Your task to perform on an android device: change alarm snooze length Image 0: 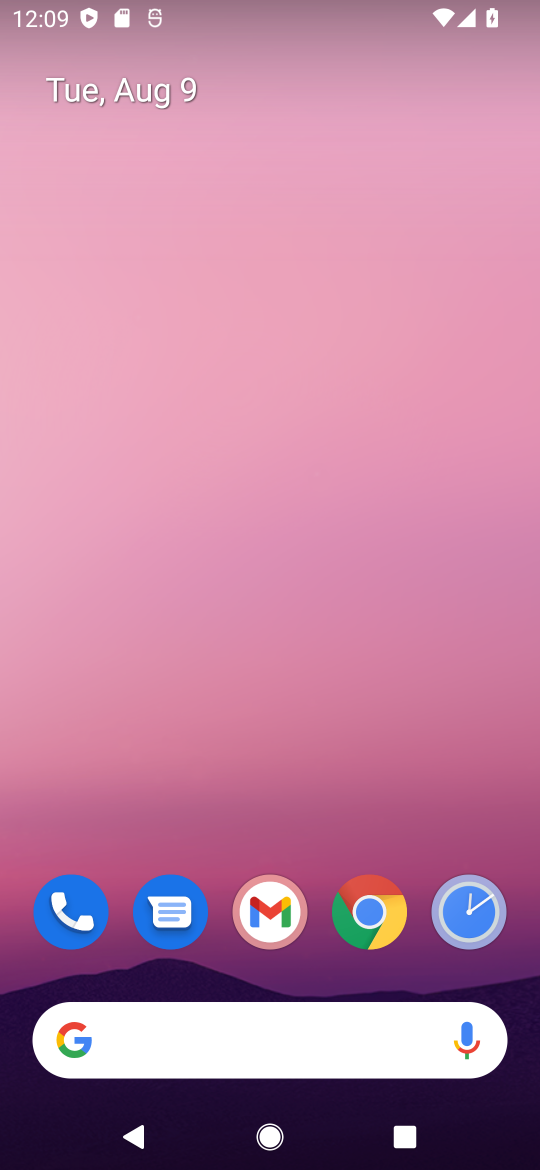
Step 0: click (468, 910)
Your task to perform on an android device: change alarm snooze length Image 1: 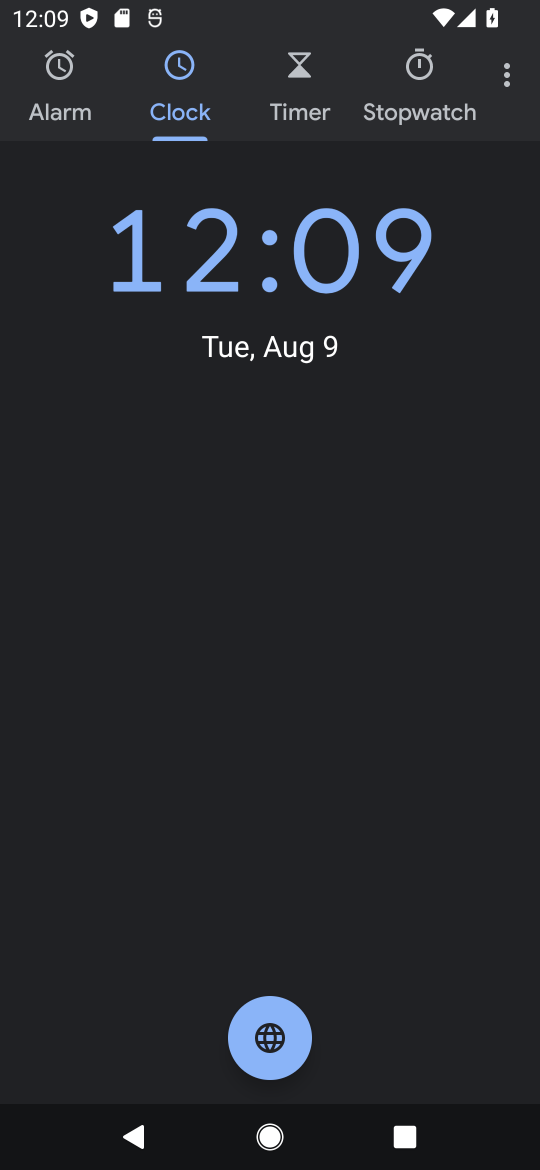
Step 1: click (493, 85)
Your task to perform on an android device: change alarm snooze length Image 2: 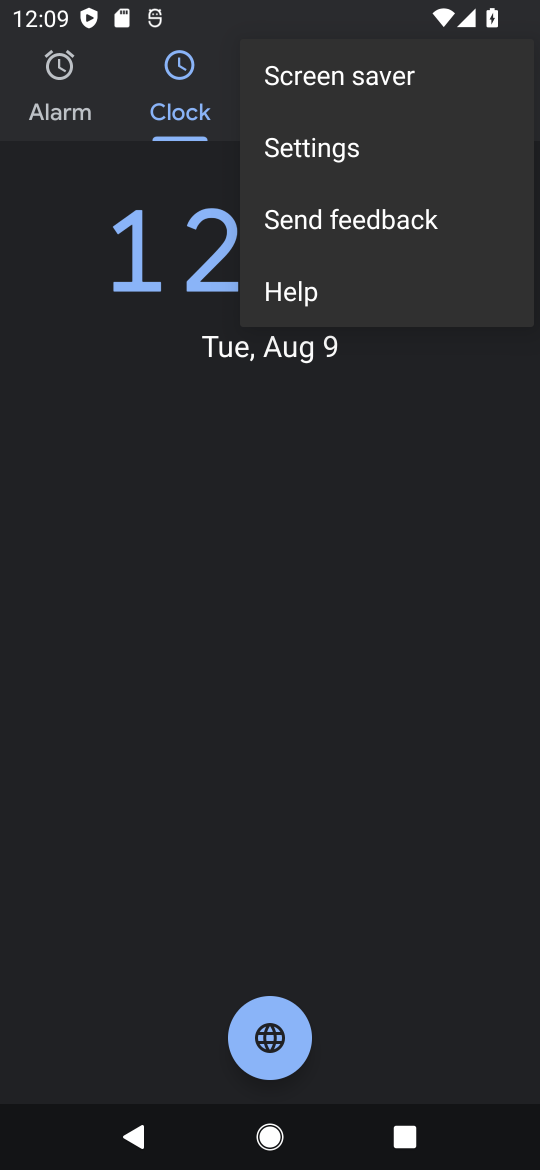
Step 2: click (333, 146)
Your task to perform on an android device: change alarm snooze length Image 3: 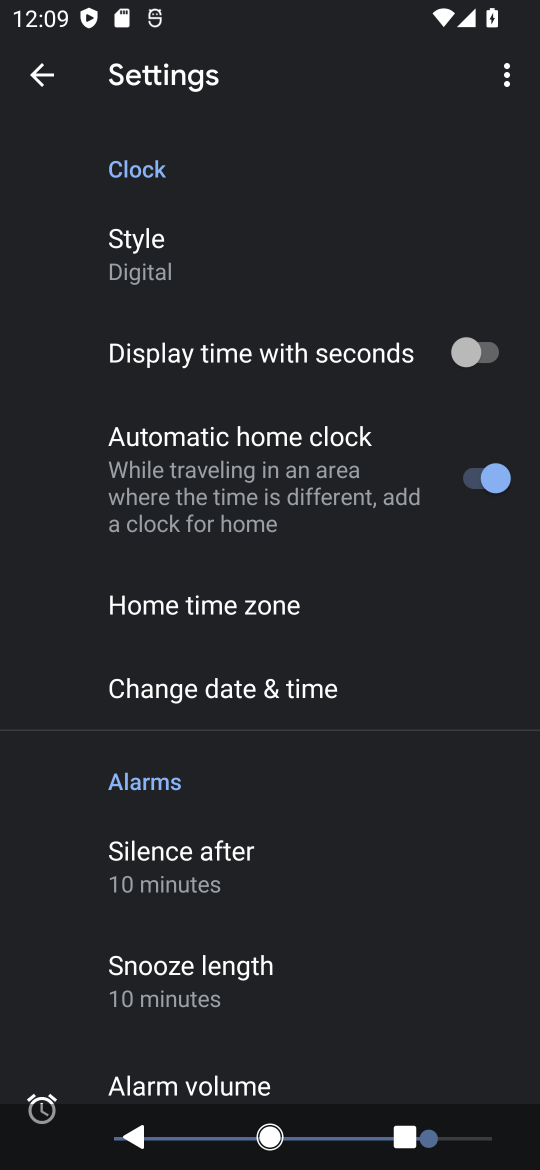
Step 3: click (192, 993)
Your task to perform on an android device: change alarm snooze length Image 4: 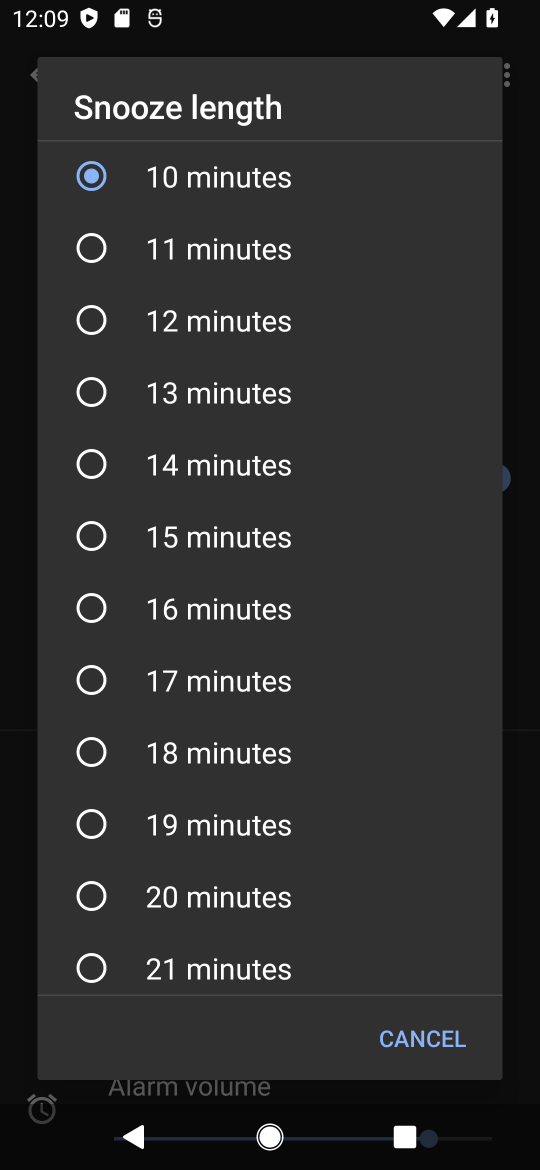
Step 4: click (266, 250)
Your task to perform on an android device: change alarm snooze length Image 5: 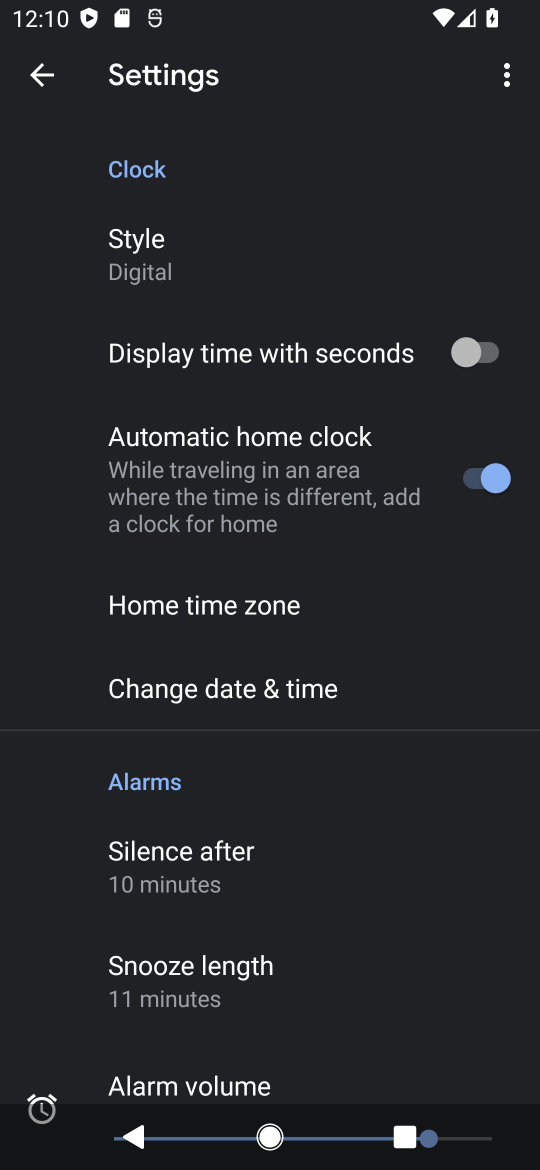
Step 5: task complete